Your task to perform on an android device: toggle pop-ups in chrome Image 0: 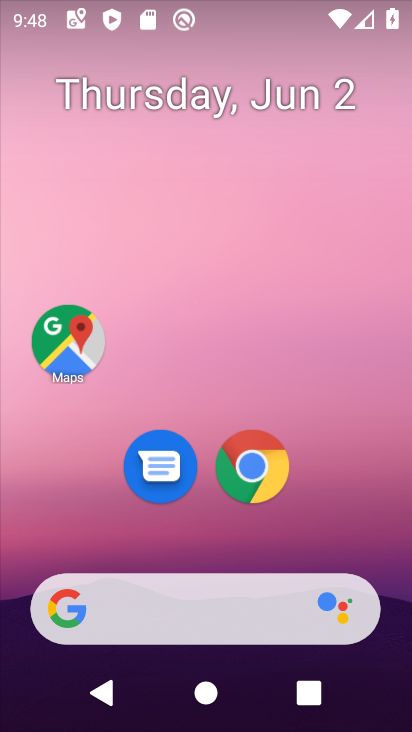
Step 0: click (240, 469)
Your task to perform on an android device: toggle pop-ups in chrome Image 1: 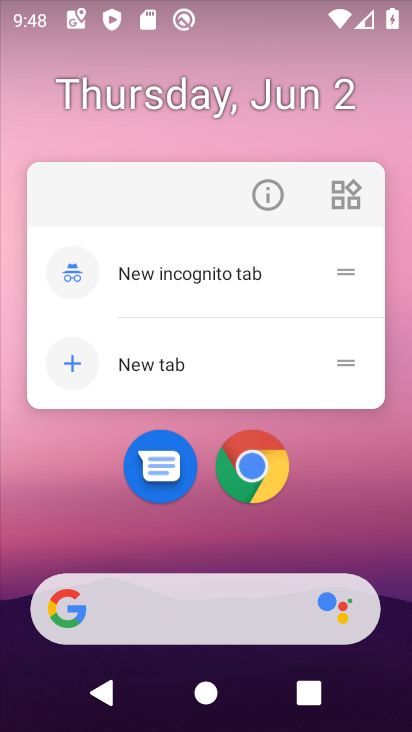
Step 1: click (239, 458)
Your task to perform on an android device: toggle pop-ups in chrome Image 2: 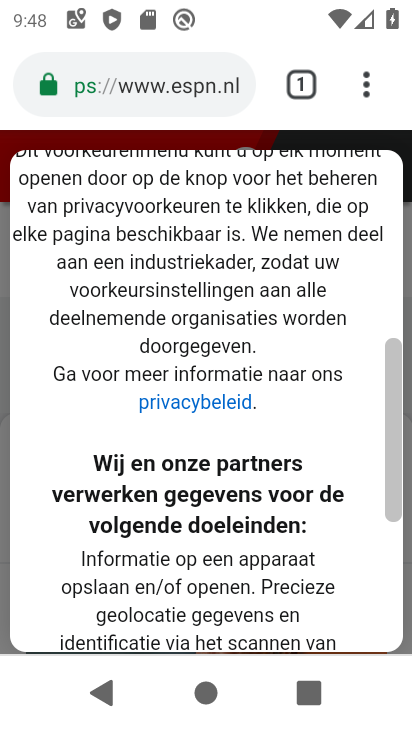
Step 2: click (367, 78)
Your task to perform on an android device: toggle pop-ups in chrome Image 3: 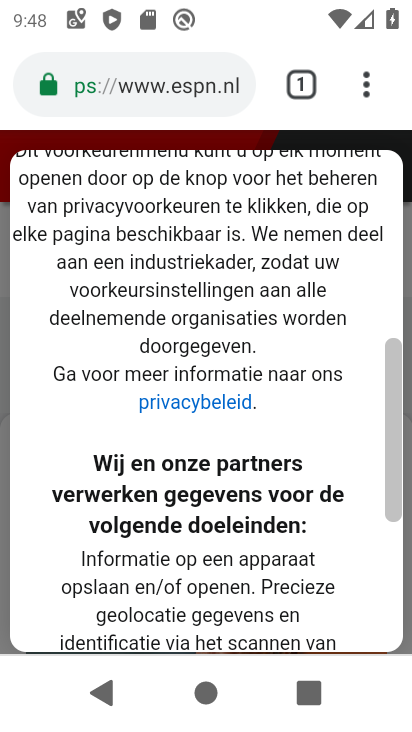
Step 3: click (366, 117)
Your task to perform on an android device: toggle pop-ups in chrome Image 4: 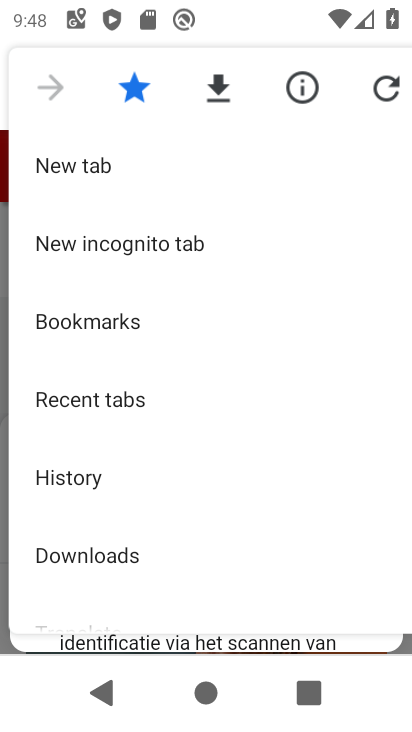
Step 4: drag from (53, 536) to (192, 42)
Your task to perform on an android device: toggle pop-ups in chrome Image 5: 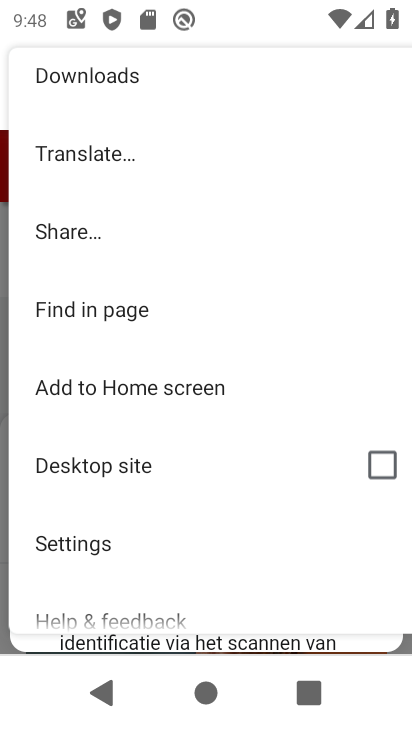
Step 5: click (165, 532)
Your task to perform on an android device: toggle pop-ups in chrome Image 6: 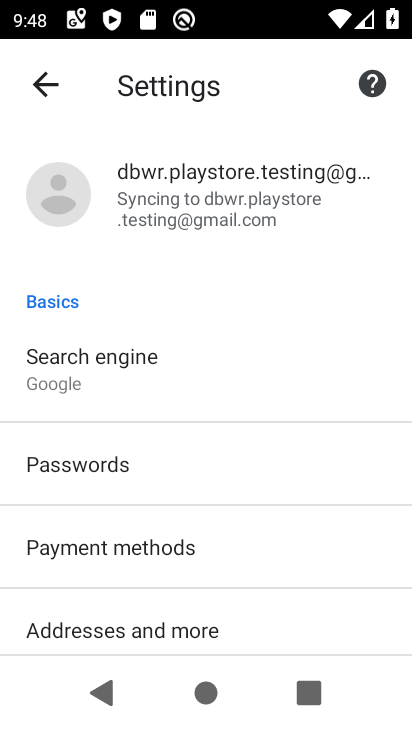
Step 6: drag from (133, 578) to (200, 300)
Your task to perform on an android device: toggle pop-ups in chrome Image 7: 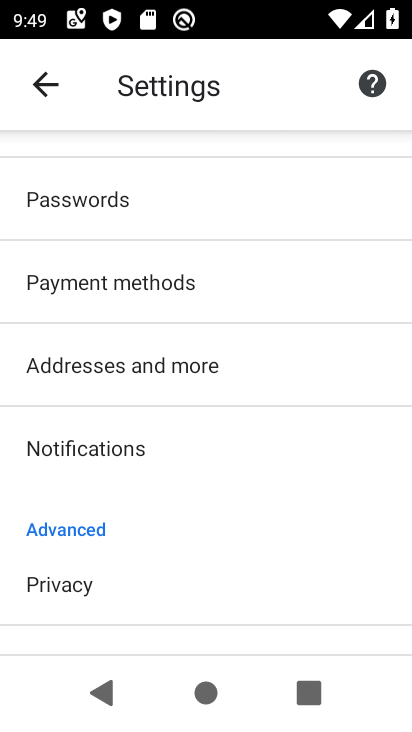
Step 7: drag from (124, 598) to (187, 232)
Your task to perform on an android device: toggle pop-ups in chrome Image 8: 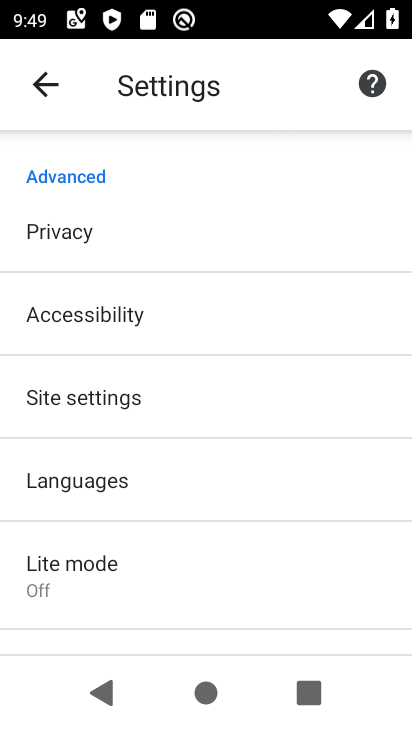
Step 8: click (129, 411)
Your task to perform on an android device: toggle pop-ups in chrome Image 9: 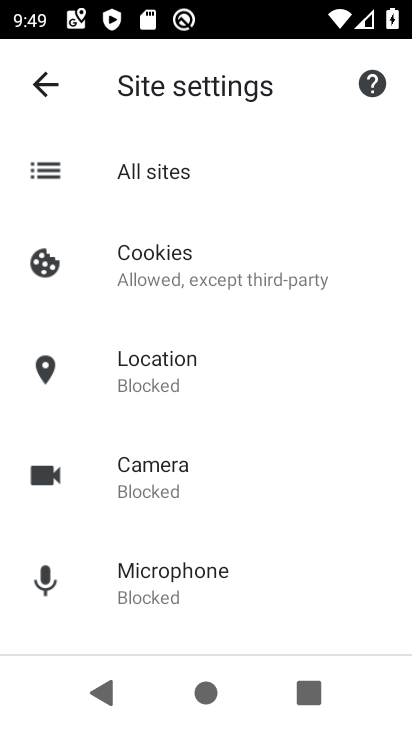
Step 9: drag from (210, 584) to (245, 229)
Your task to perform on an android device: toggle pop-ups in chrome Image 10: 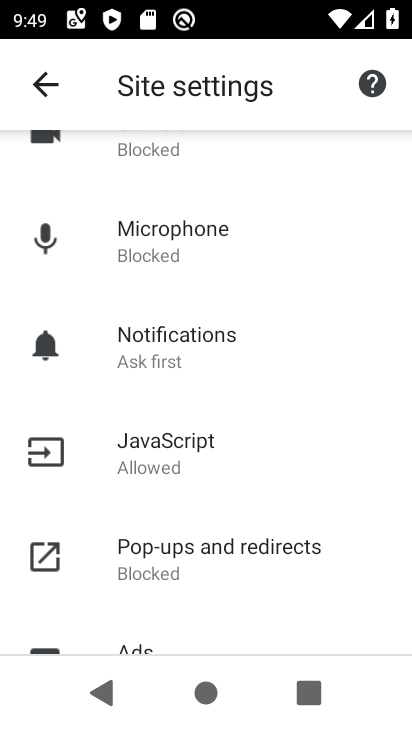
Step 10: drag from (196, 582) to (221, 295)
Your task to perform on an android device: toggle pop-ups in chrome Image 11: 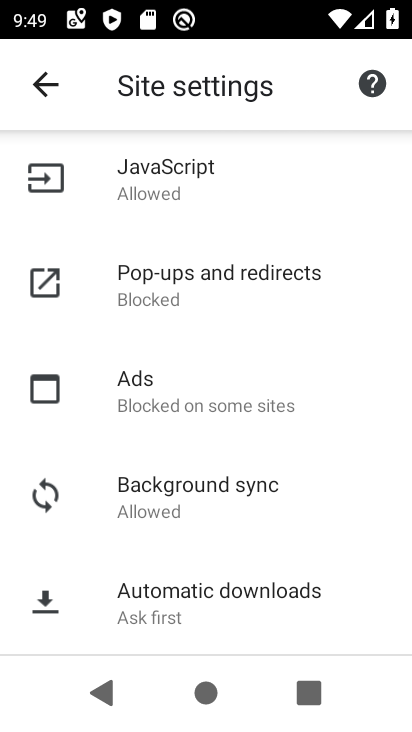
Step 11: click (202, 296)
Your task to perform on an android device: toggle pop-ups in chrome Image 12: 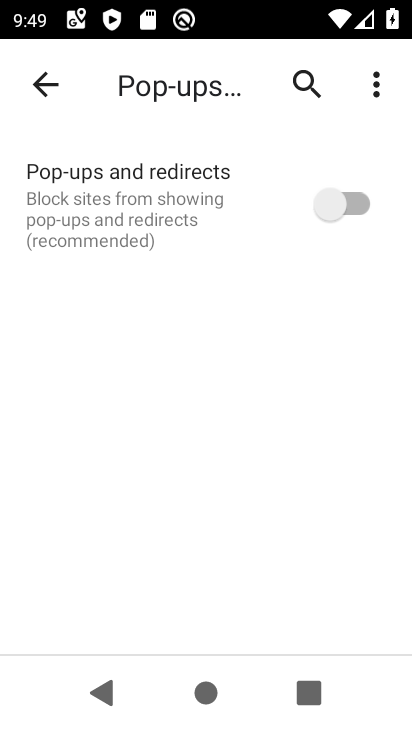
Step 12: click (316, 209)
Your task to perform on an android device: toggle pop-ups in chrome Image 13: 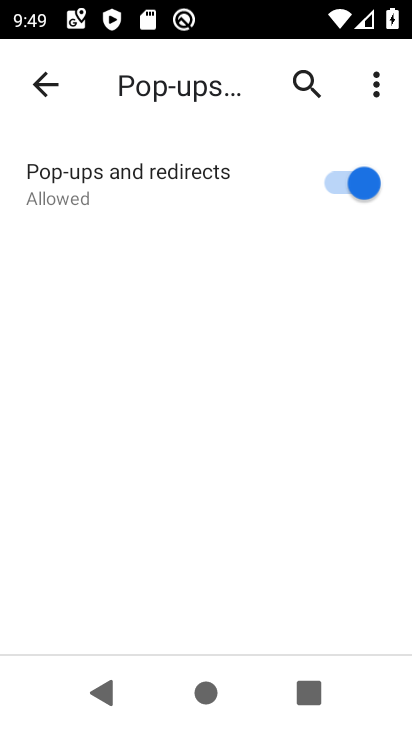
Step 13: task complete